Your task to perform on an android device: see tabs open on other devices in the chrome app Image 0: 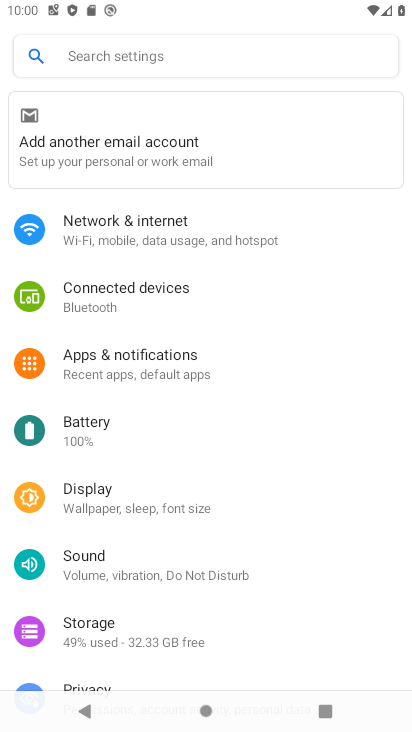
Step 0: press home button
Your task to perform on an android device: see tabs open on other devices in the chrome app Image 1: 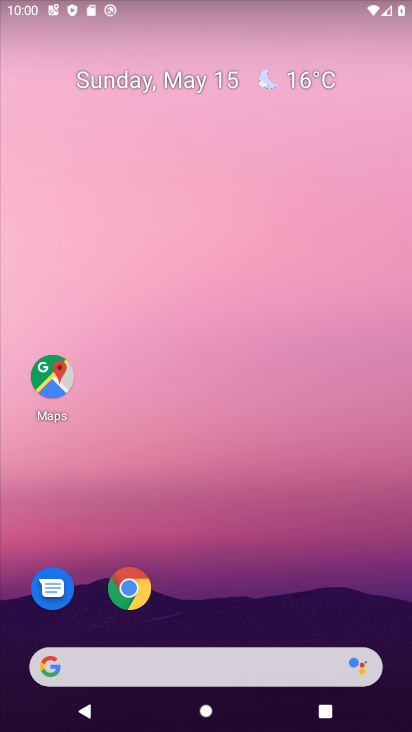
Step 1: click (130, 596)
Your task to perform on an android device: see tabs open on other devices in the chrome app Image 2: 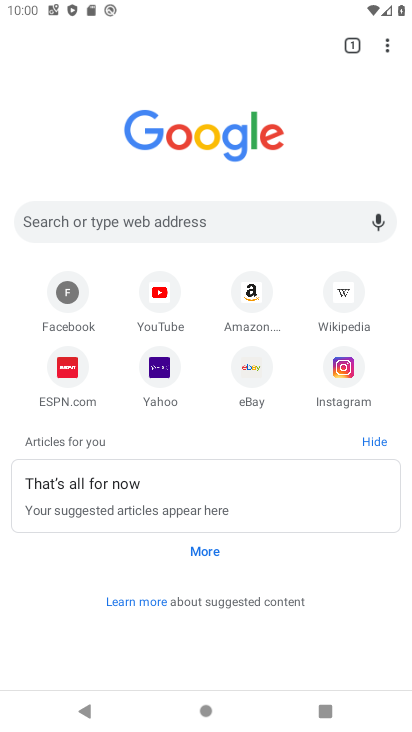
Step 2: task complete